Your task to perform on an android device: change text size in settings app Image 0: 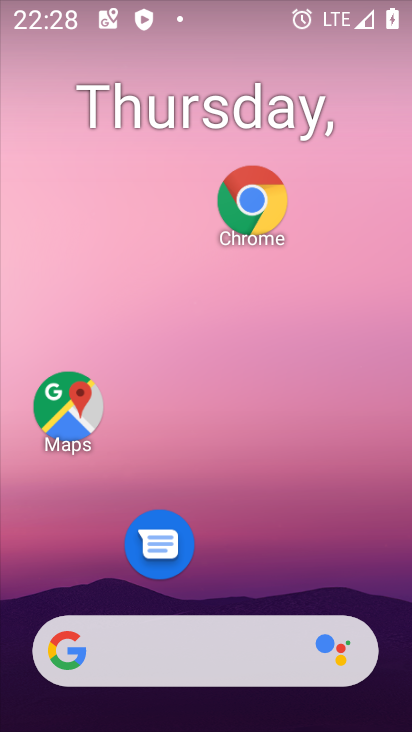
Step 0: drag from (227, 575) to (191, 68)
Your task to perform on an android device: change text size in settings app Image 1: 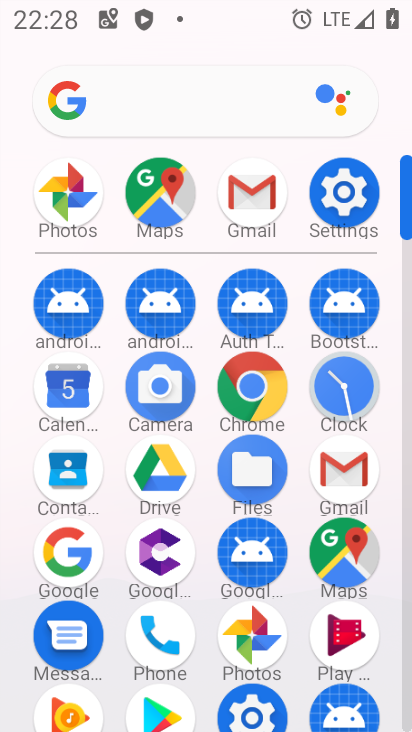
Step 1: click (246, 708)
Your task to perform on an android device: change text size in settings app Image 2: 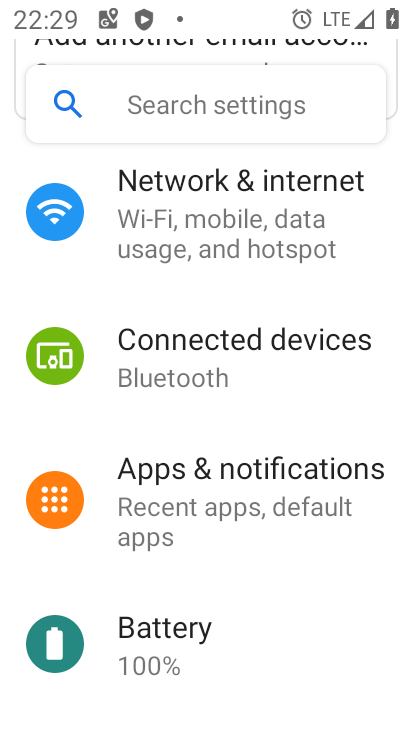
Step 2: drag from (246, 708) to (238, 45)
Your task to perform on an android device: change text size in settings app Image 3: 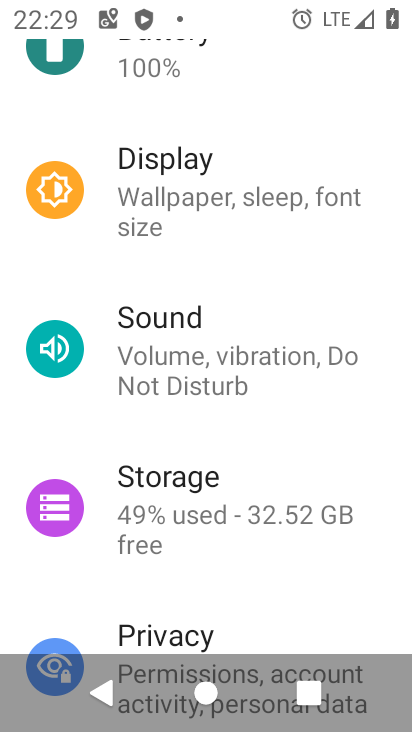
Step 3: drag from (218, 624) to (28, 28)
Your task to perform on an android device: change text size in settings app Image 4: 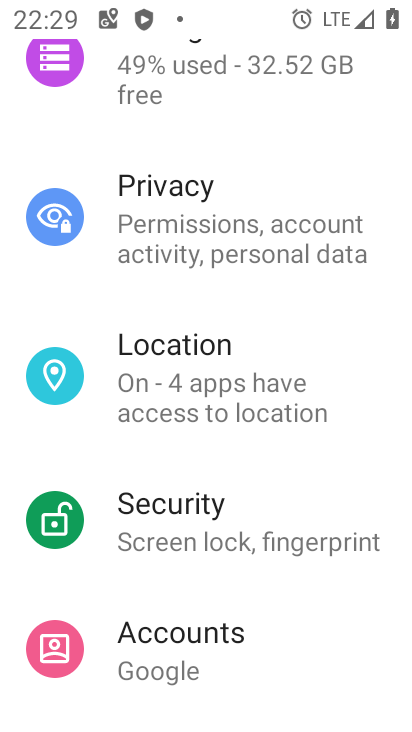
Step 4: drag from (160, 507) to (182, 178)
Your task to perform on an android device: change text size in settings app Image 5: 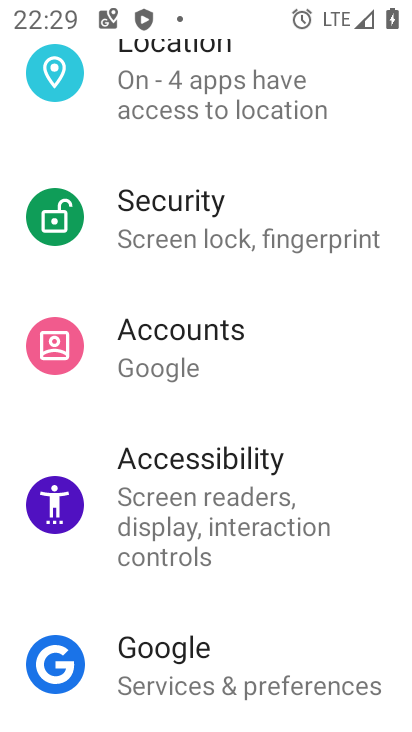
Step 5: drag from (186, 560) to (183, 0)
Your task to perform on an android device: change text size in settings app Image 6: 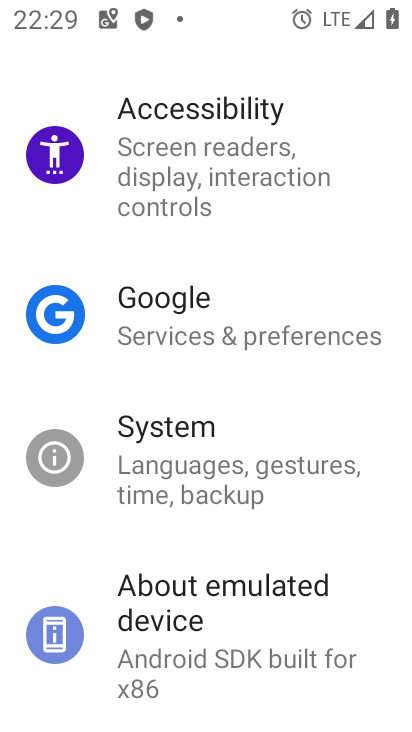
Step 6: drag from (221, 201) to (190, 592)
Your task to perform on an android device: change text size in settings app Image 7: 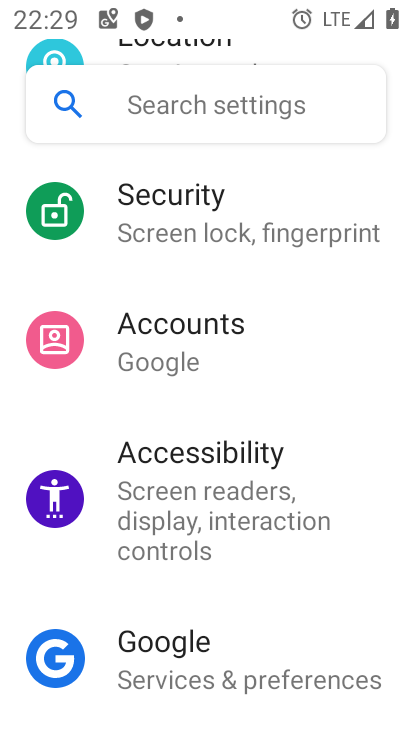
Step 7: drag from (172, 249) to (182, 613)
Your task to perform on an android device: change text size in settings app Image 8: 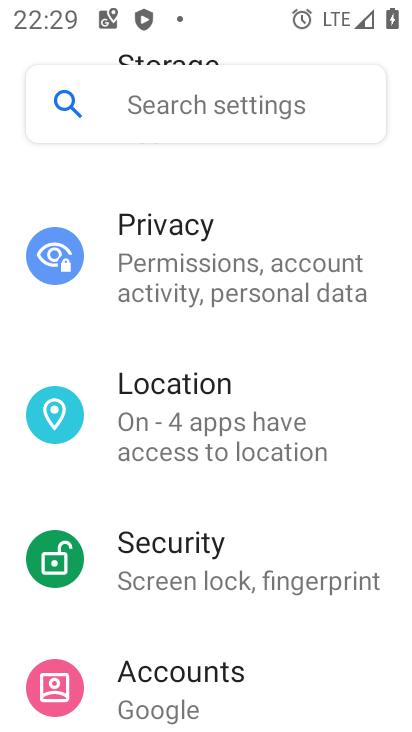
Step 8: drag from (188, 240) to (200, 627)
Your task to perform on an android device: change text size in settings app Image 9: 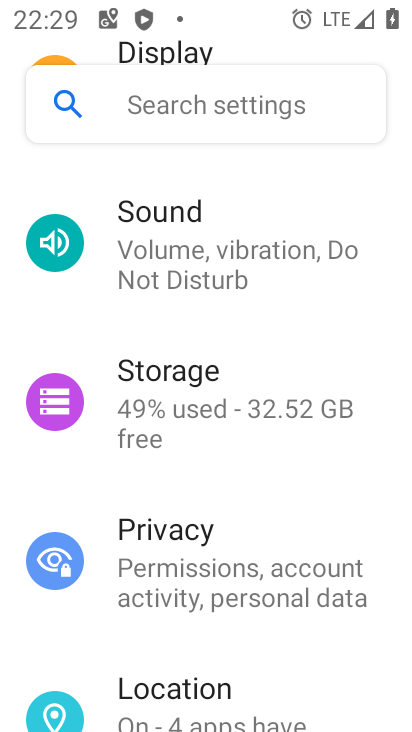
Step 9: drag from (195, 240) to (218, 696)
Your task to perform on an android device: change text size in settings app Image 10: 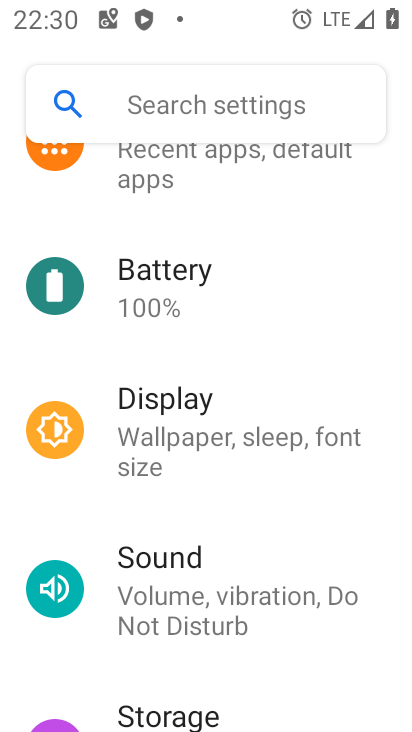
Step 10: click (173, 447)
Your task to perform on an android device: change text size in settings app Image 11: 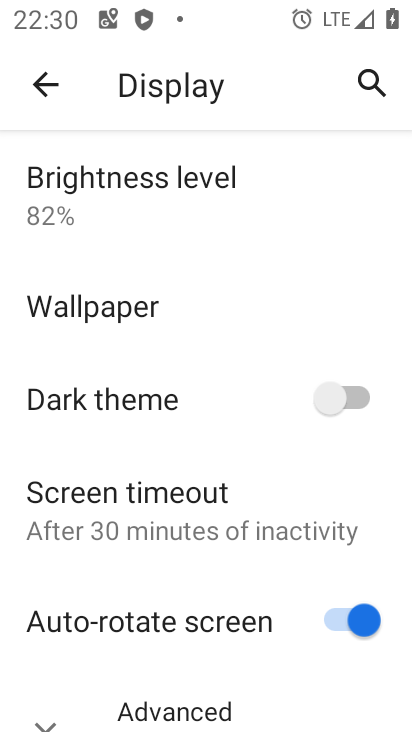
Step 11: drag from (173, 447) to (241, 57)
Your task to perform on an android device: change text size in settings app Image 12: 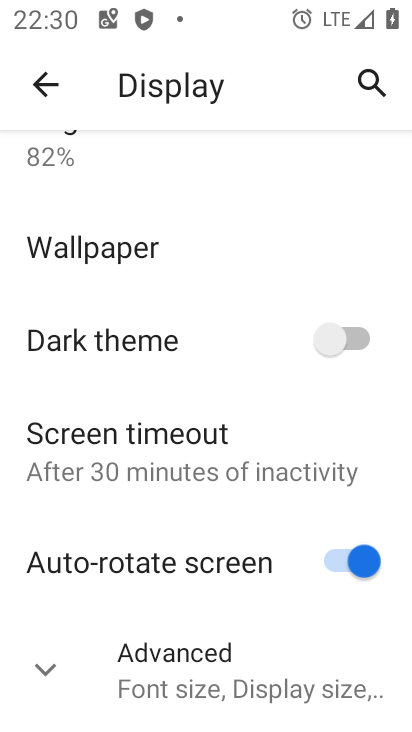
Step 12: click (202, 665)
Your task to perform on an android device: change text size in settings app Image 13: 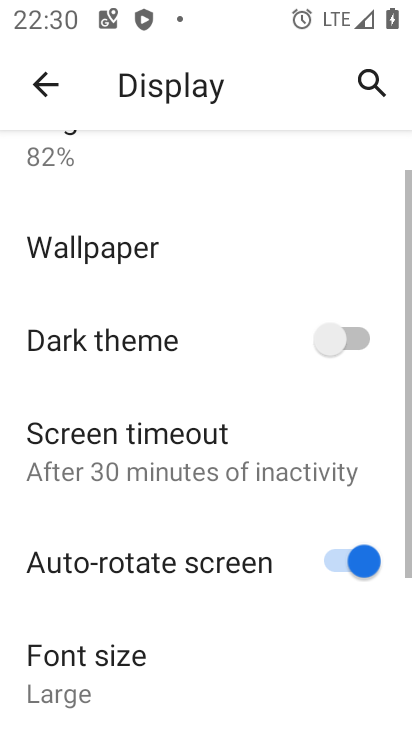
Step 13: click (202, 665)
Your task to perform on an android device: change text size in settings app Image 14: 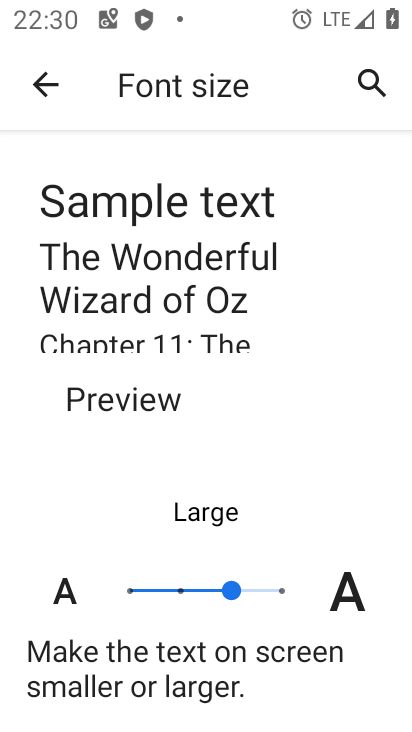
Step 14: click (284, 588)
Your task to perform on an android device: change text size in settings app Image 15: 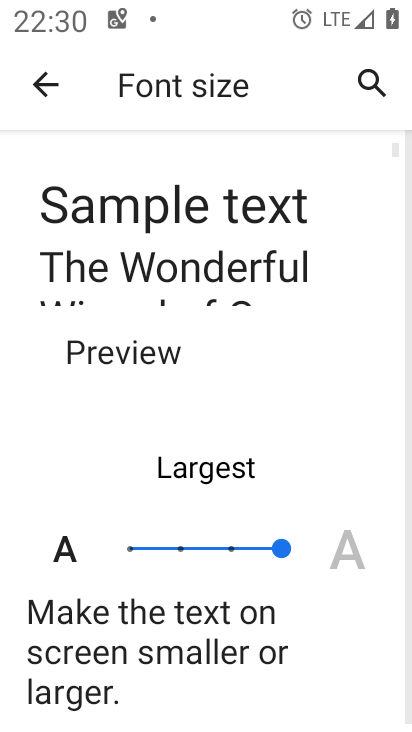
Step 15: task complete